Your task to perform on an android device: add a contact Image 0: 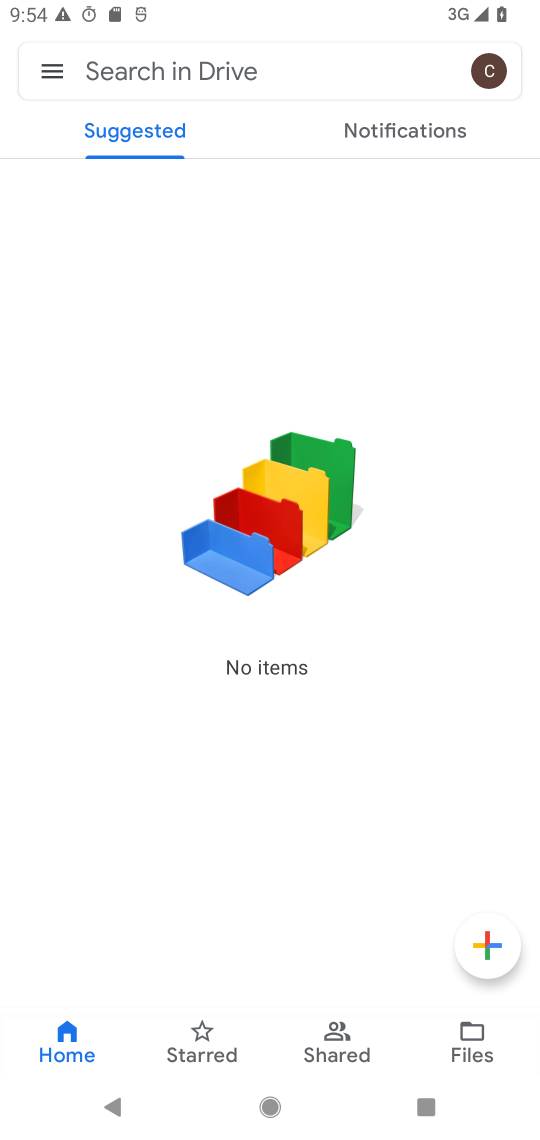
Step 0: press home button
Your task to perform on an android device: add a contact Image 1: 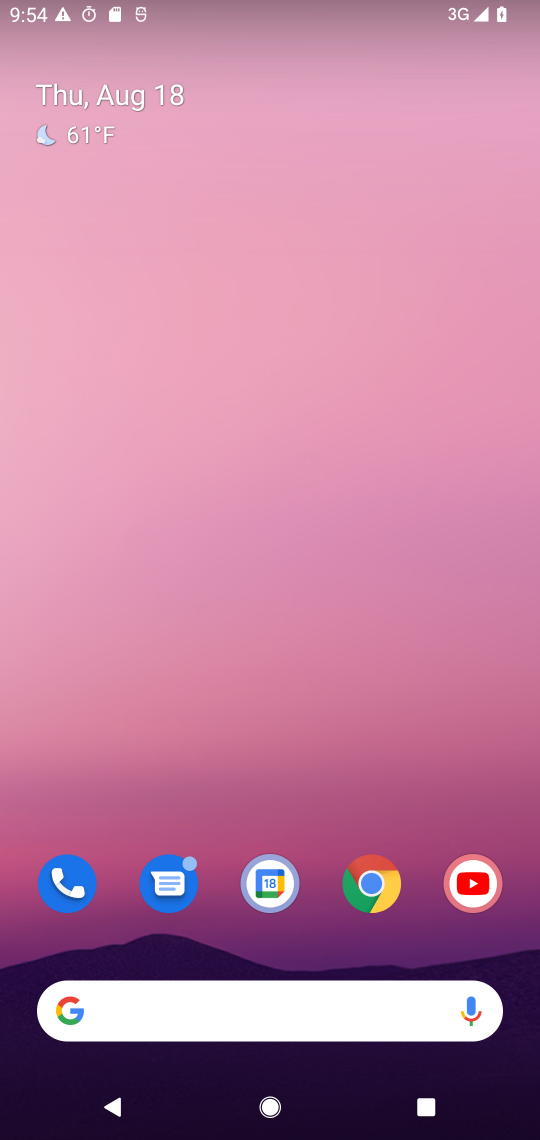
Step 1: task complete